Your task to perform on an android device: Check the weather Image 0: 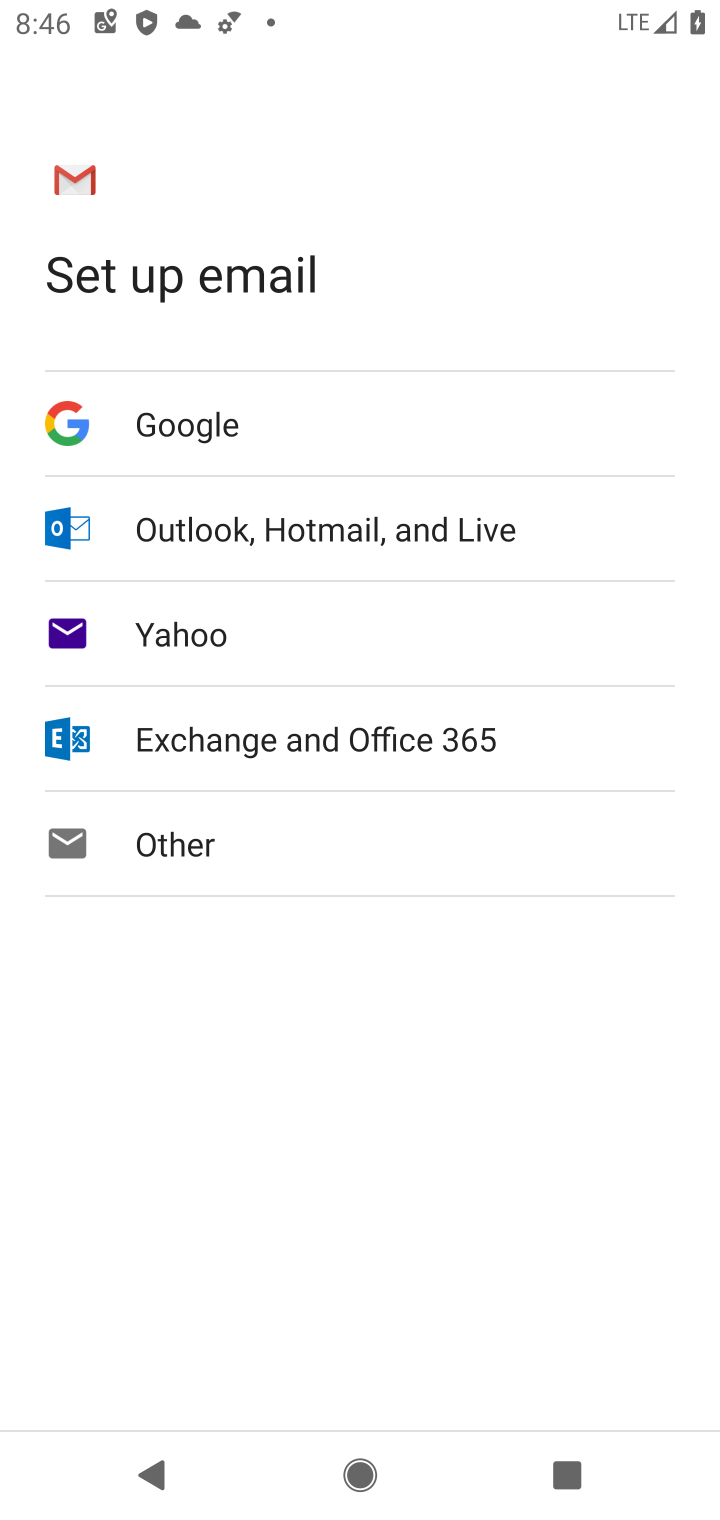
Step 0: press home button
Your task to perform on an android device: Check the weather Image 1: 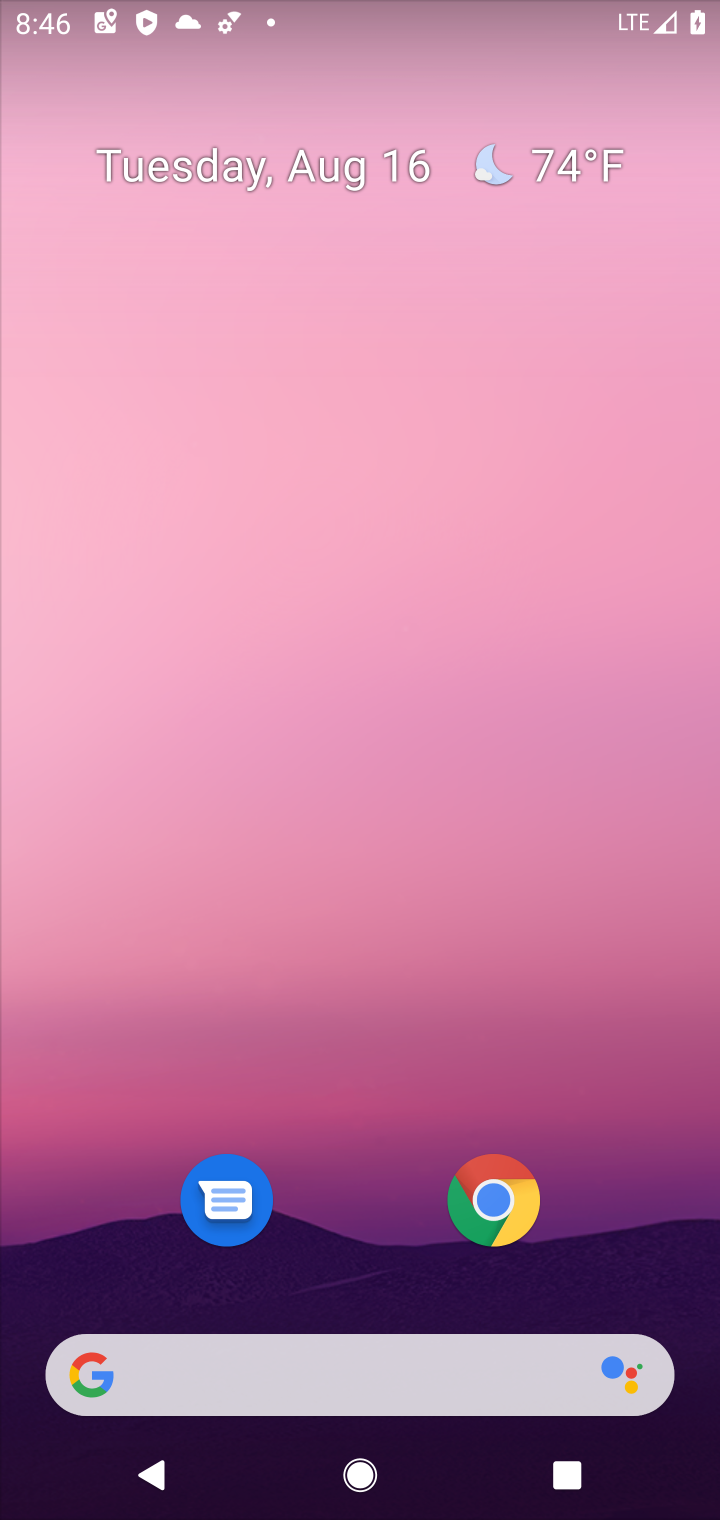
Step 1: click (531, 161)
Your task to perform on an android device: Check the weather Image 2: 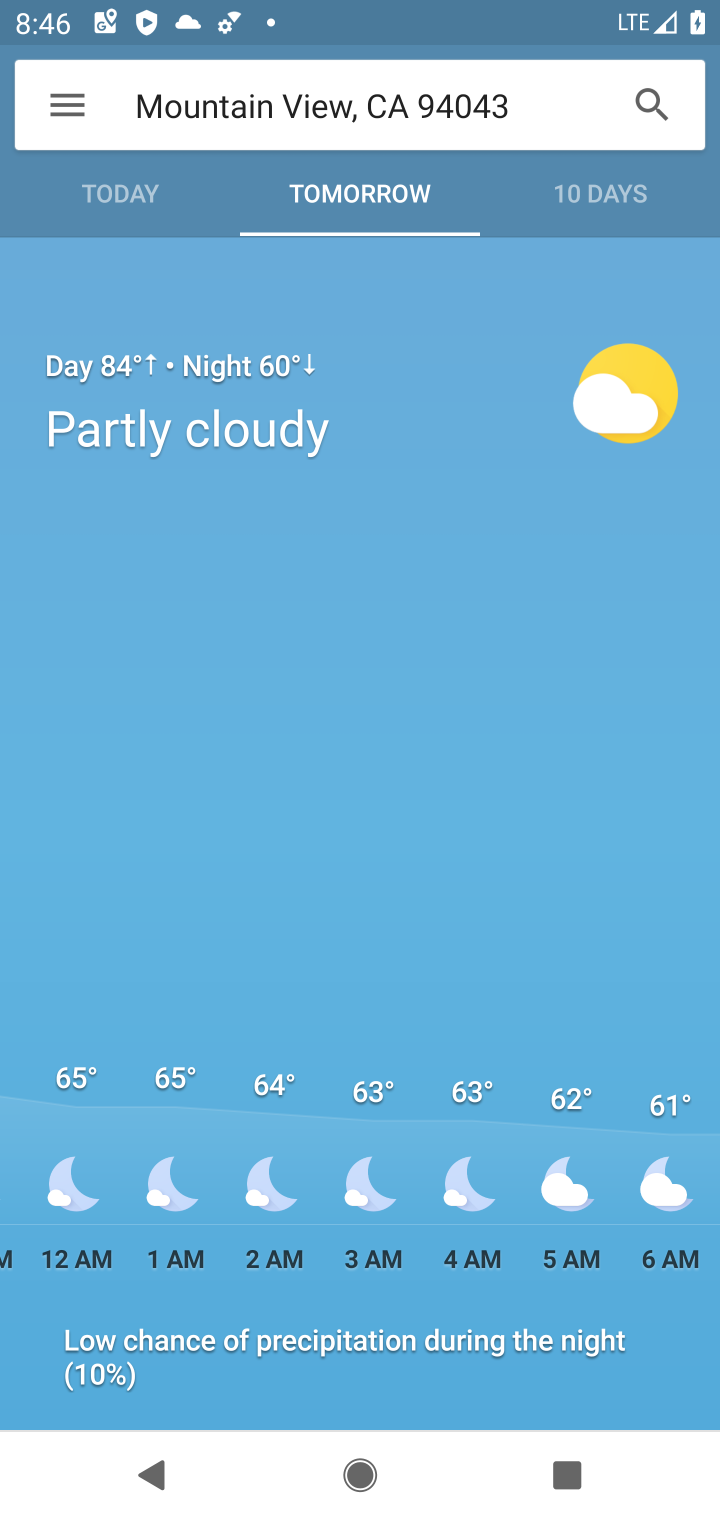
Step 2: click (113, 208)
Your task to perform on an android device: Check the weather Image 3: 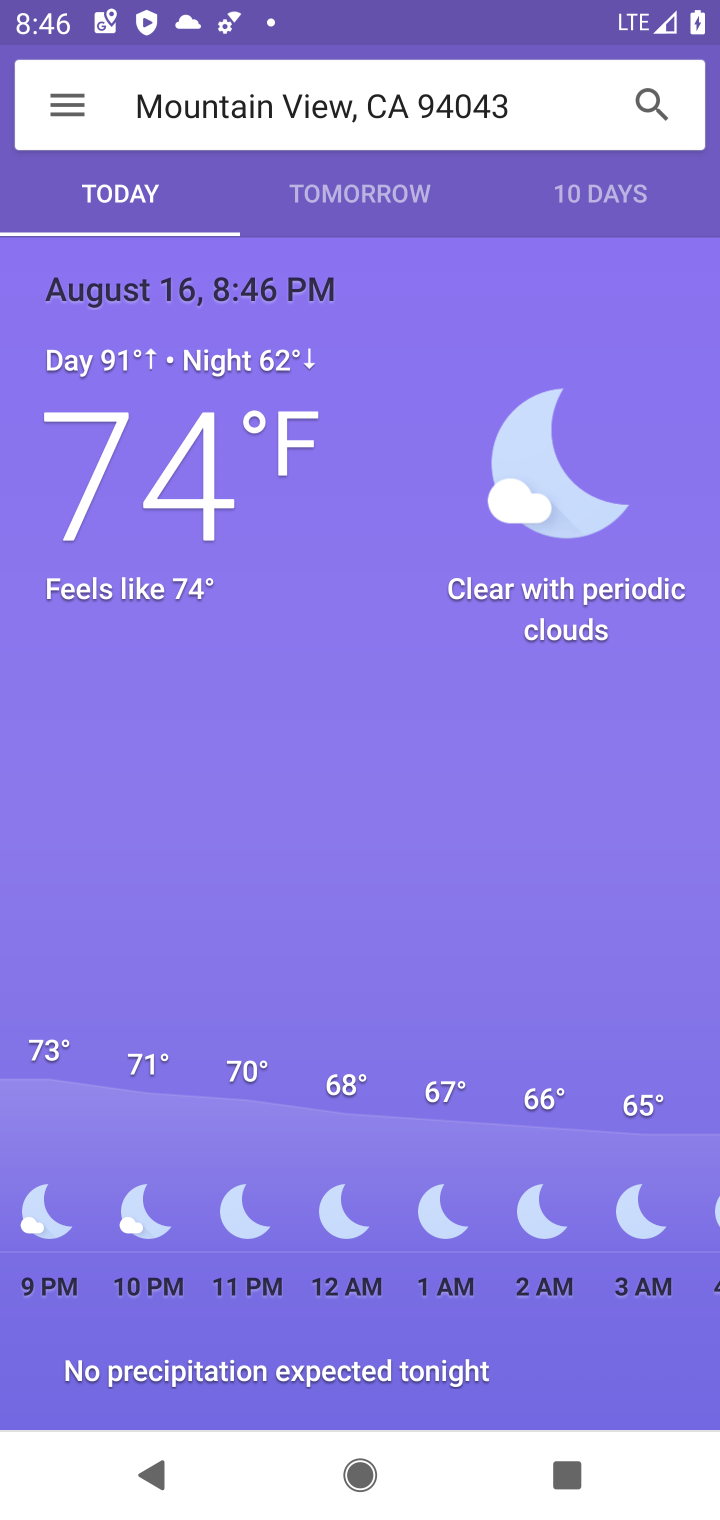
Step 3: task complete